Your task to perform on an android device: toggle airplane mode Image 0: 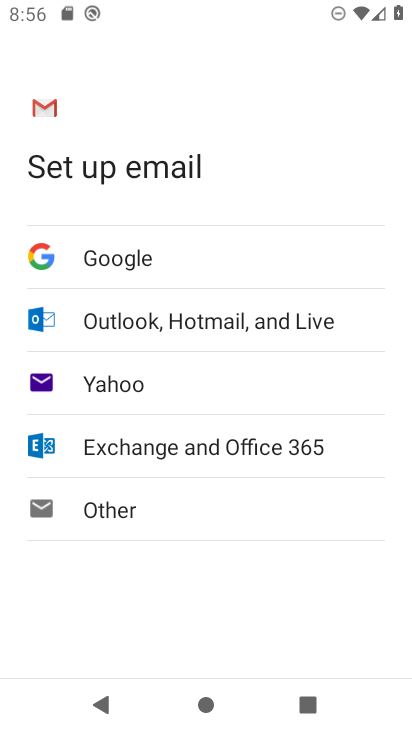
Step 0: press home button
Your task to perform on an android device: toggle airplane mode Image 1: 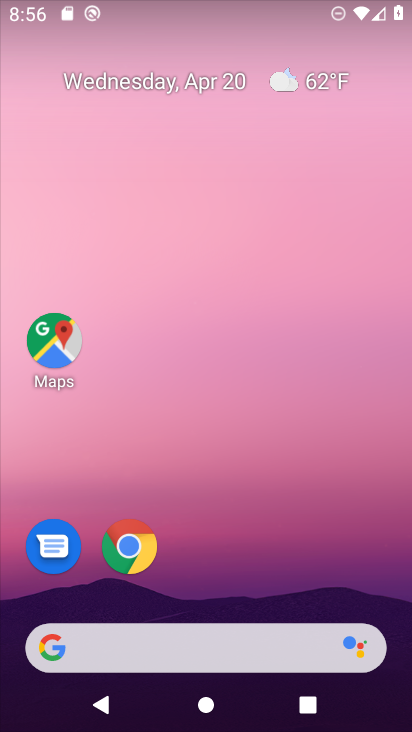
Step 1: drag from (263, 542) to (303, 125)
Your task to perform on an android device: toggle airplane mode Image 2: 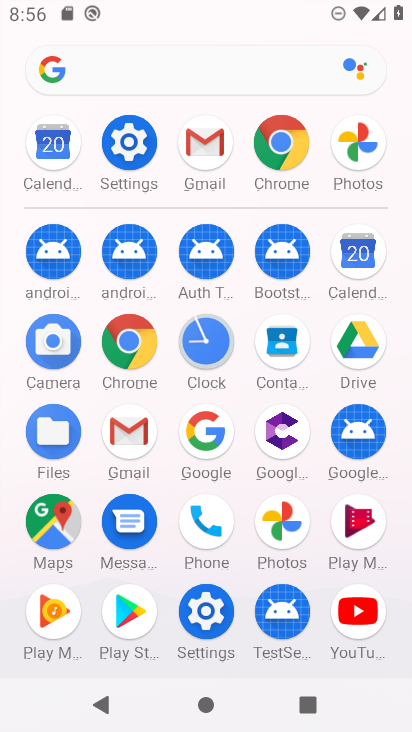
Step 2: click (133, 147)
Your task to perform on an android device: toggle airplane mode Image 3: 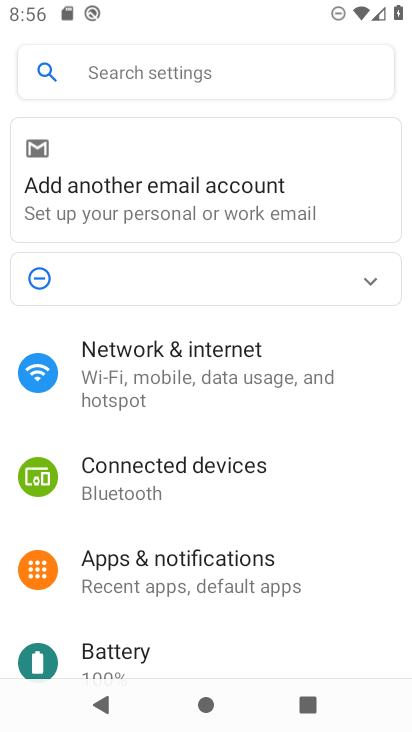
Step 3: click (167, 375)
Your task to perform on an android device: toggle airplane mode Image 4: 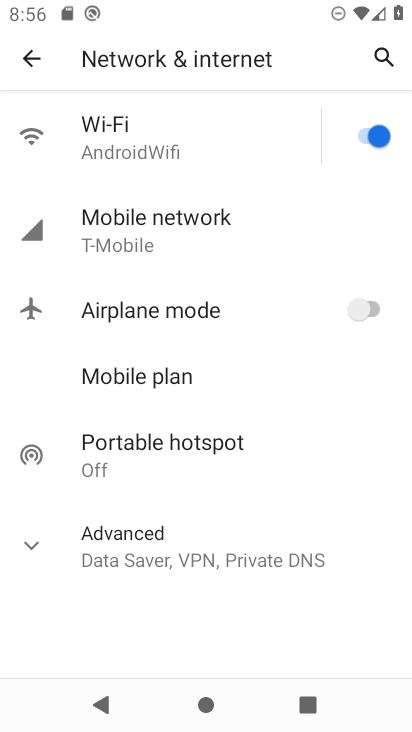
Step 4: click (353, 307)
Your task to perform on an android device: toggle airplane mode Image 5: 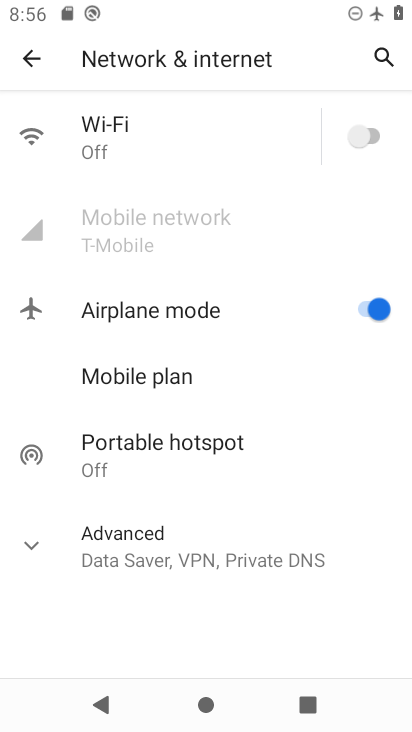
Step 5: task complete